Your task to perform on an android device: delete the emails in spam in the gmail app Image 0: 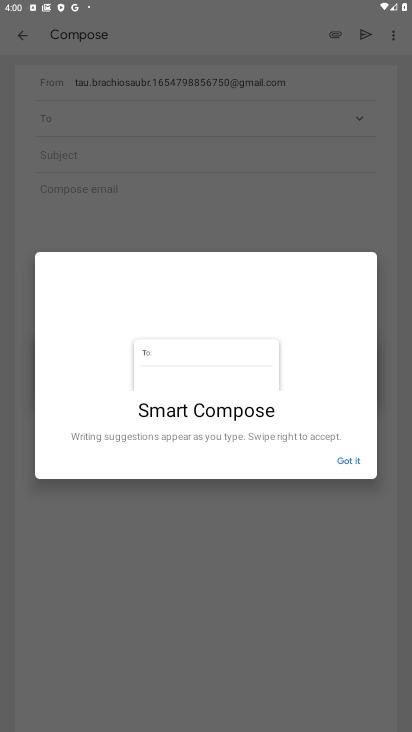
Step 0: press home button
Your task to perform on an android device: delete the emails in spam in the gmail app Image 1: 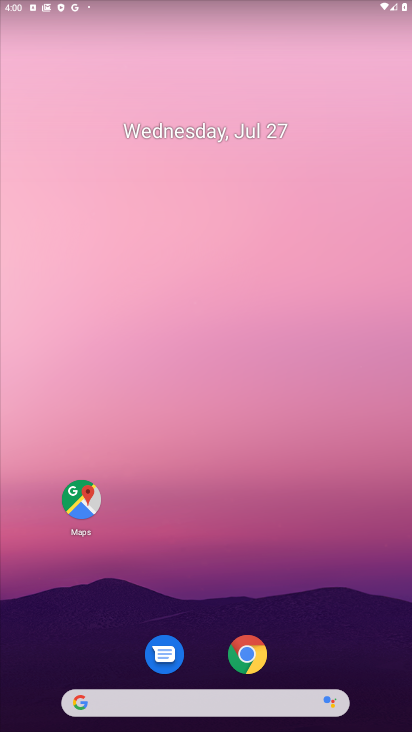
Step 1: drag from (233, 638) to (238, 231)
Your task to perform on an android device: delete the emails in spam in the gmail app Image 2: 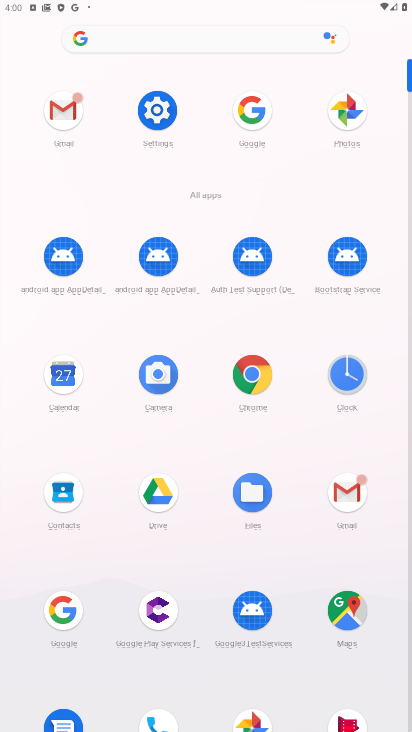
Step 2: click (344, 490)
Your task to perform on an android device: delete the emails in spam in the gmail app Image 3: 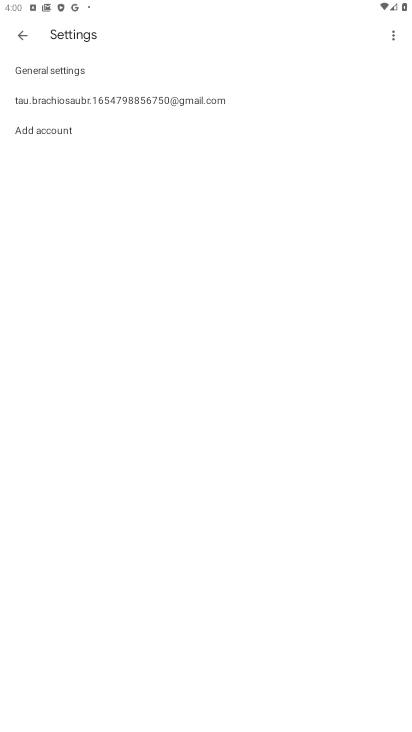
Step 3: click (57, 103)
Your task to perform on an android device: delete the emails in spam in the gmail app Image 4: 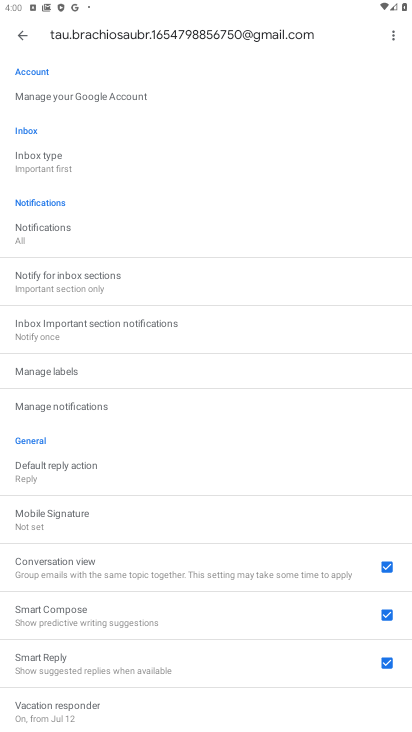
Step 4: click (12, 46)
Your task to perform on an android device: delete the emails in spam in the gmail app Image 5: 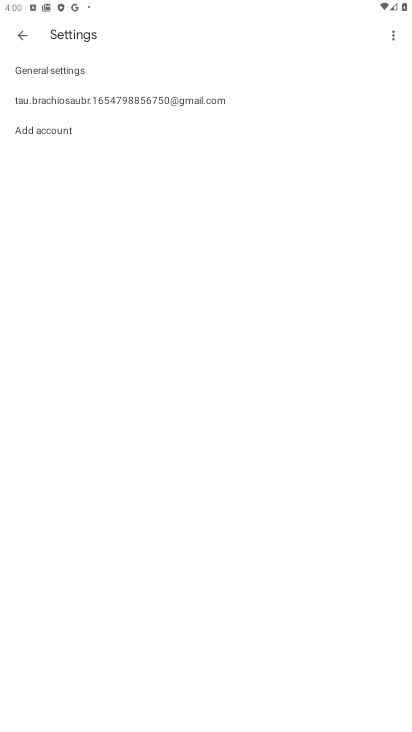
Step 5: click (12, 46)
Your task to perform on an android device: delete the emails in spam in the gmail app Image 6: 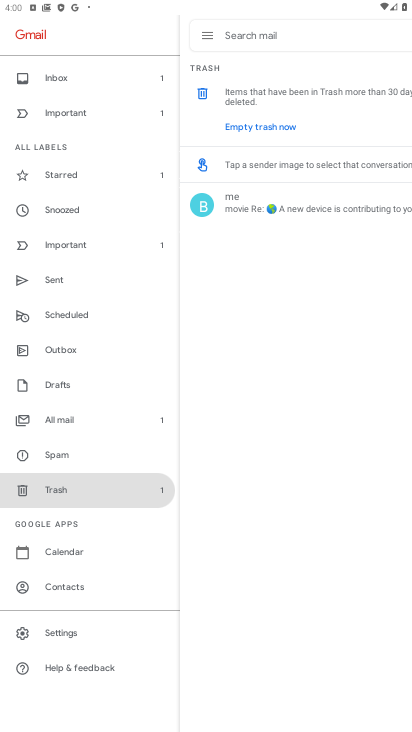
Step 6: click (50, 452)
Your task to perform on an android device: delete the emails in spam in the gmail app Image 7: 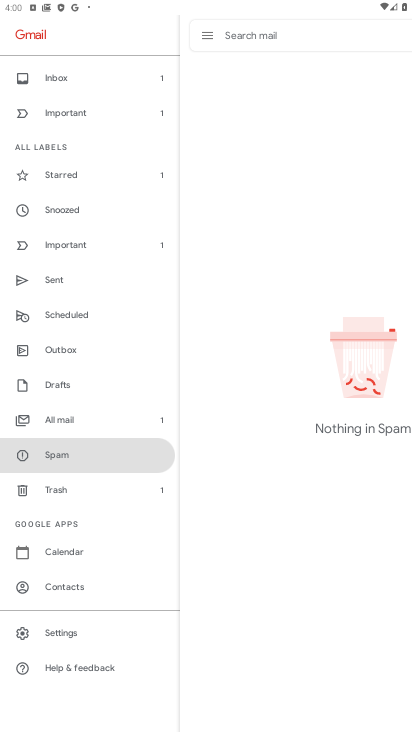
Step 7: task complete